Your task to perform on an android device: turn on improve location accuracy Image 0: 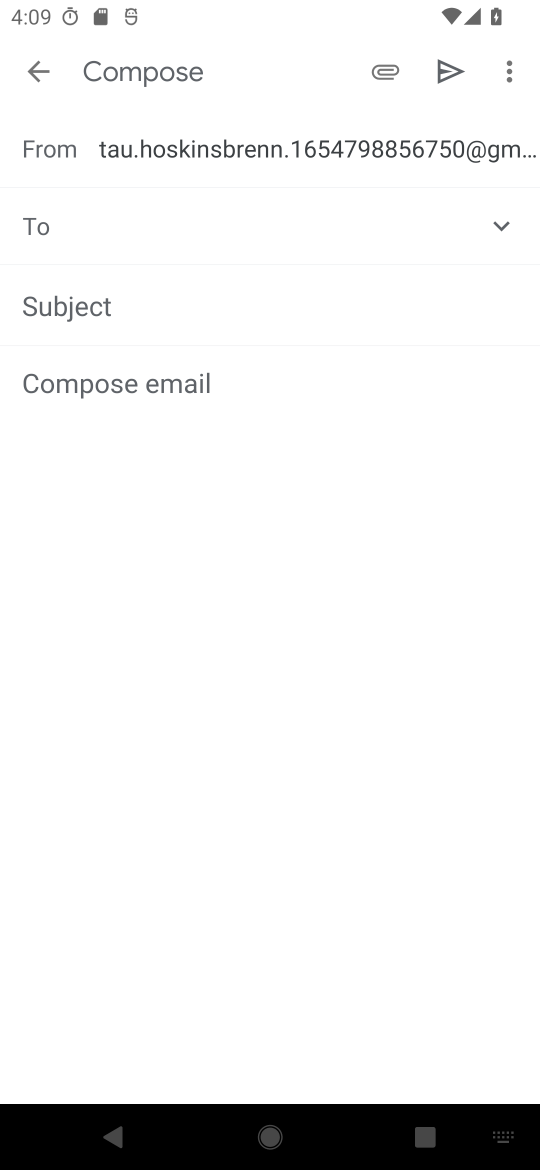
Step 0: press home button
Your task to perform on an android device: turn on improve location accuracy Image 1: 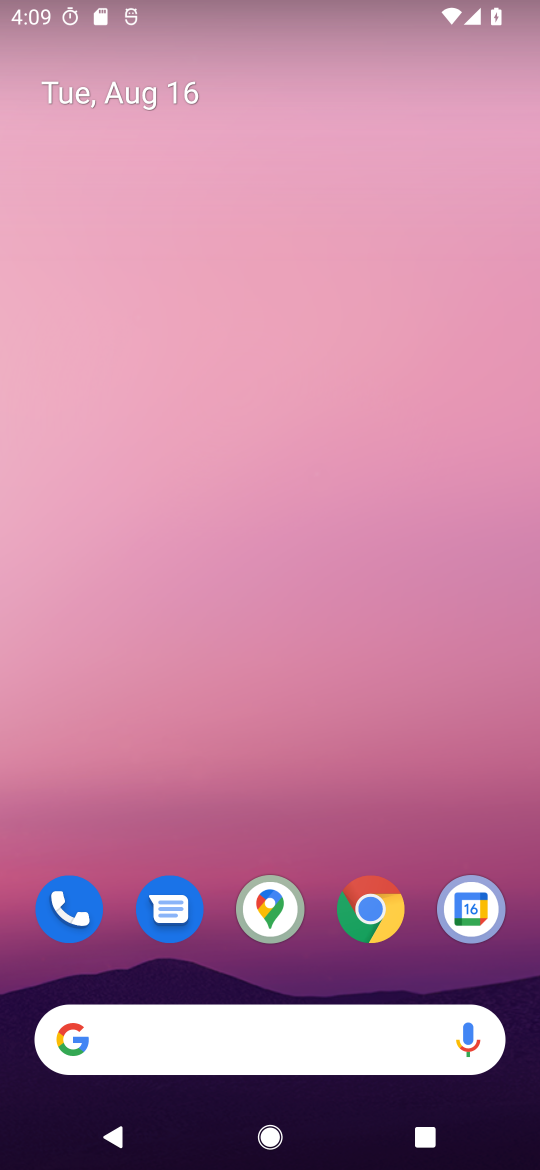
Step 1: drag from (266, 944) to (202, 88)
Your task to perform on an android device: turn on improve location accuracy Image 2: 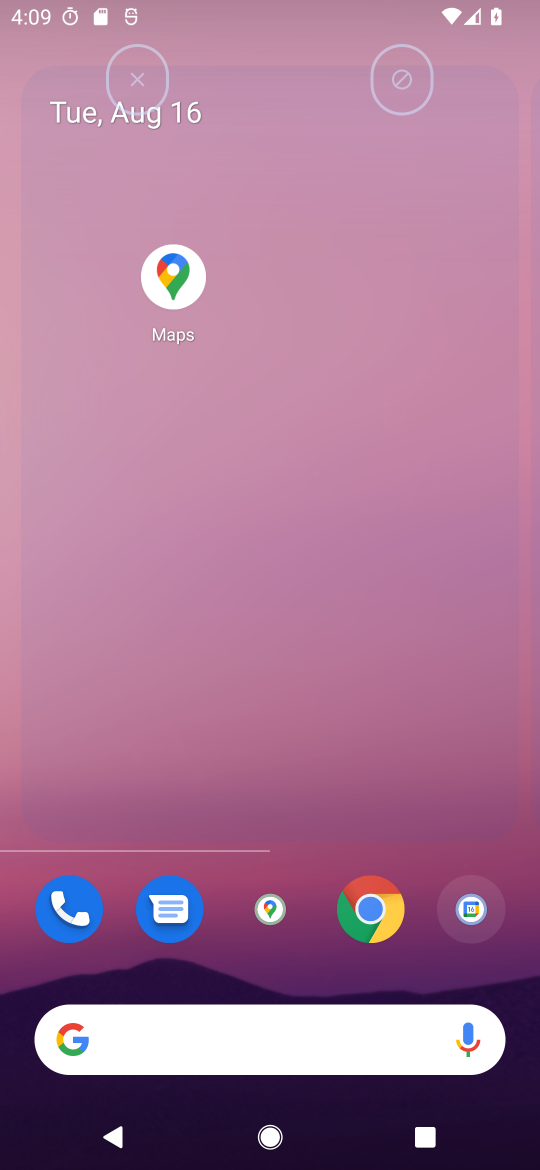
Step 2: click (321, 932)
Your task to perform on an android device: turn on improve location accuracy Image 3: 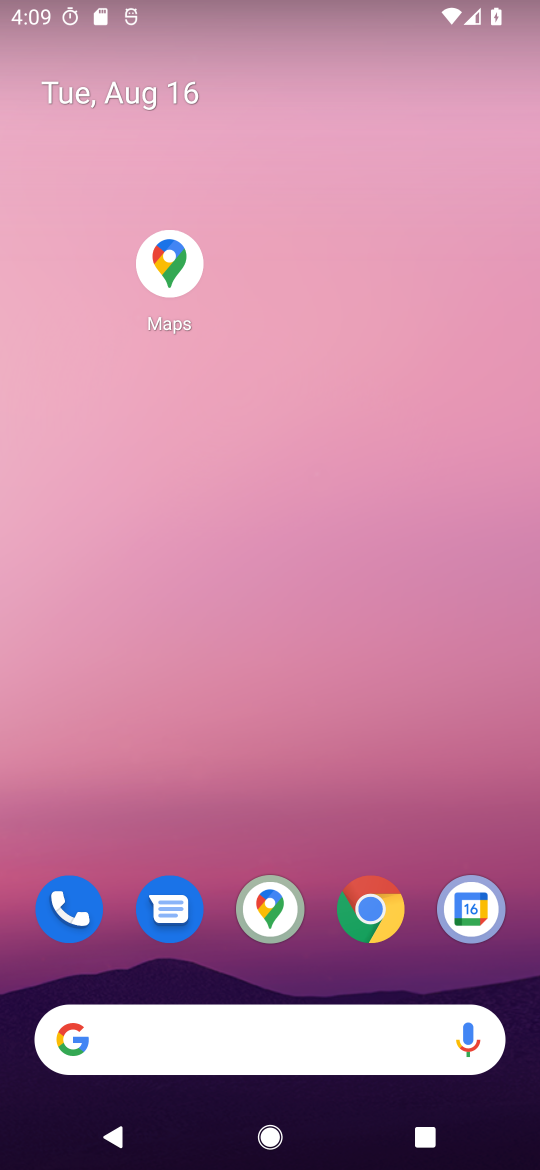
Step 3: drag from (253, 996) to (240, 187)
Your task to perform on an android device: turn on improve location accuracy Image 4: 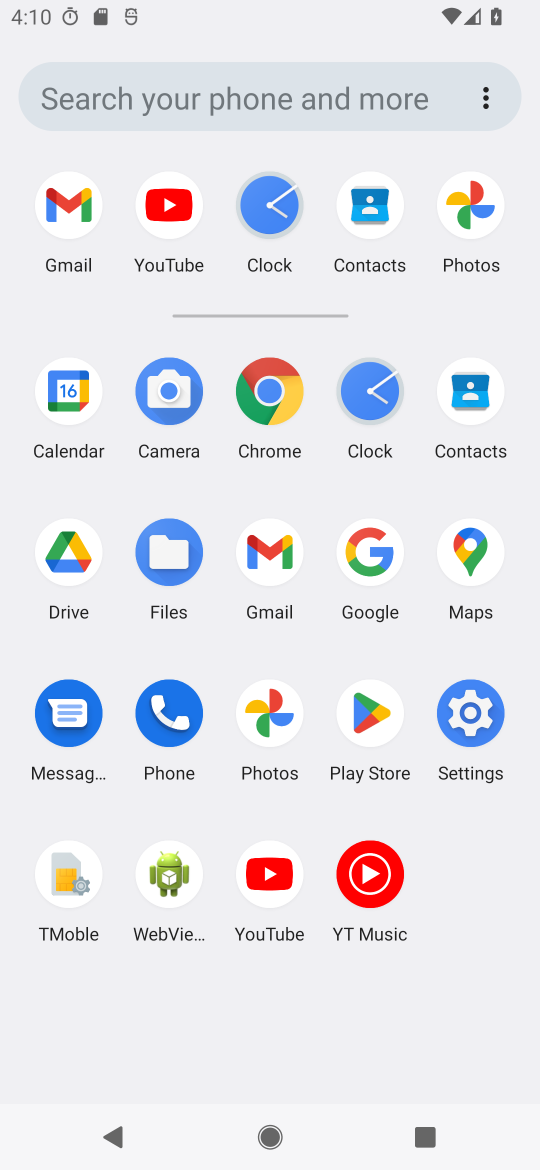
Step 4: click (460, 704)
Your task to perform on an android device: turn on improve location accuracy Image 5: 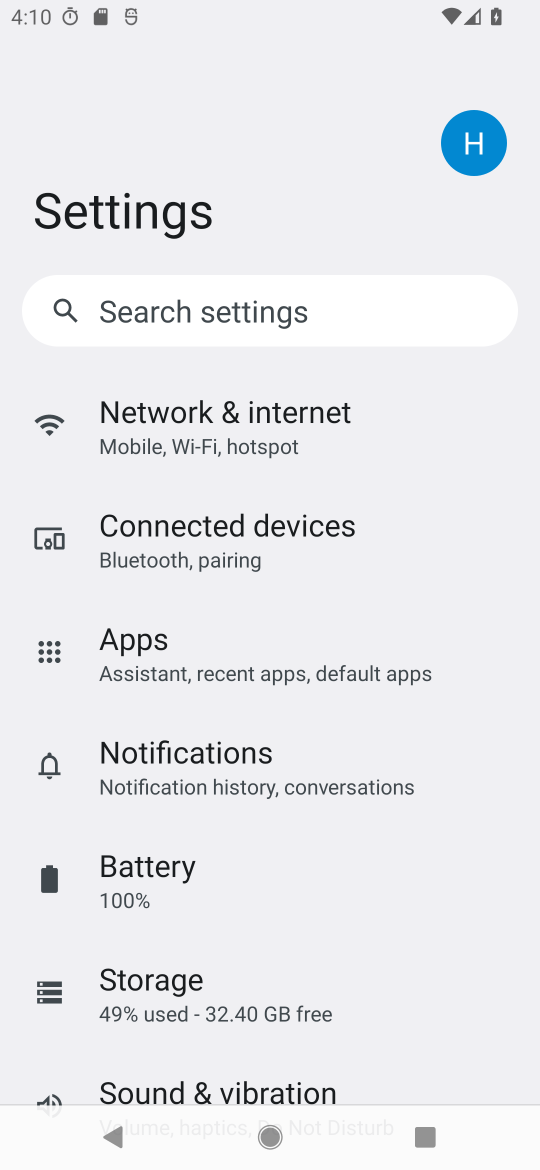
Step 5: drag from (275, 929) to (279, 447)
Your task to perform on an android device: turn on improve location accuracy Image 6: 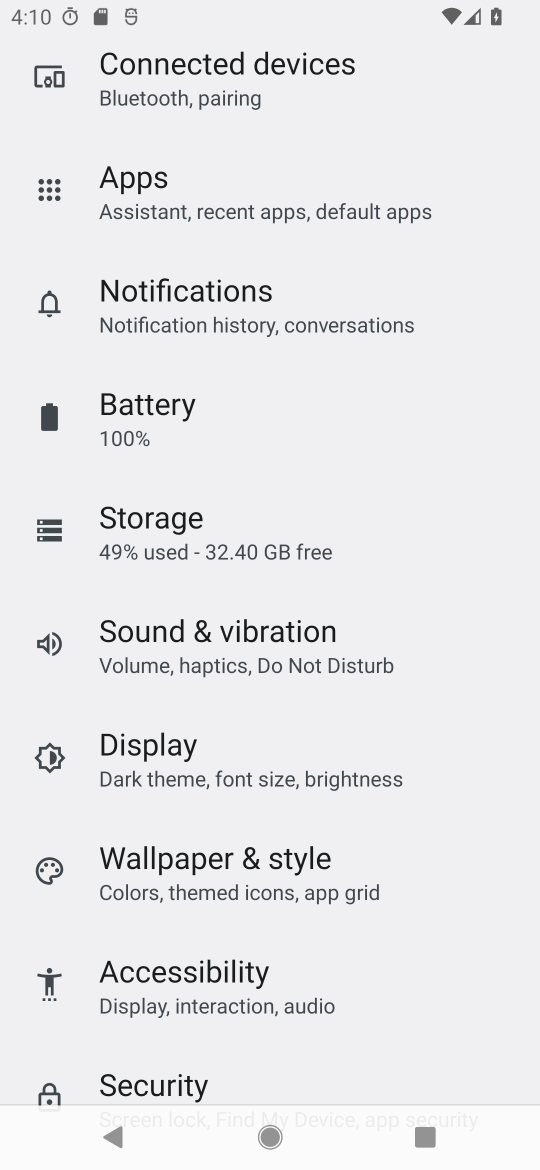
Step 6: drag from (244, 829) to (250, 610)
Your task to perform on an android device: turn on improve location accuracy Image 7: 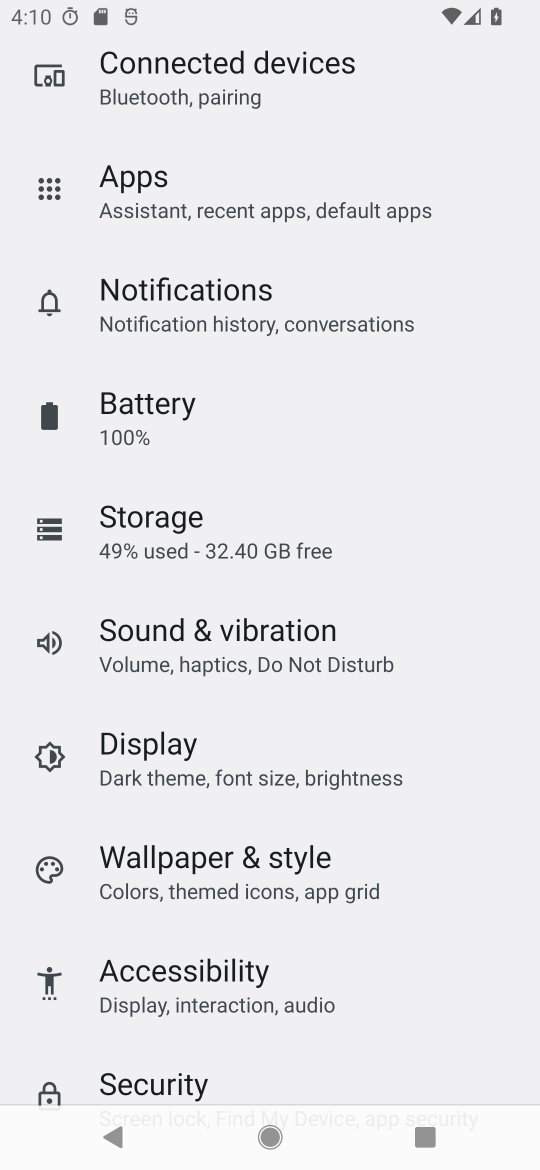
Step 7: drag from (250, 1030) to (393, 179)
Your task to perform on an android device: turn on improve location accuracy Image 8: 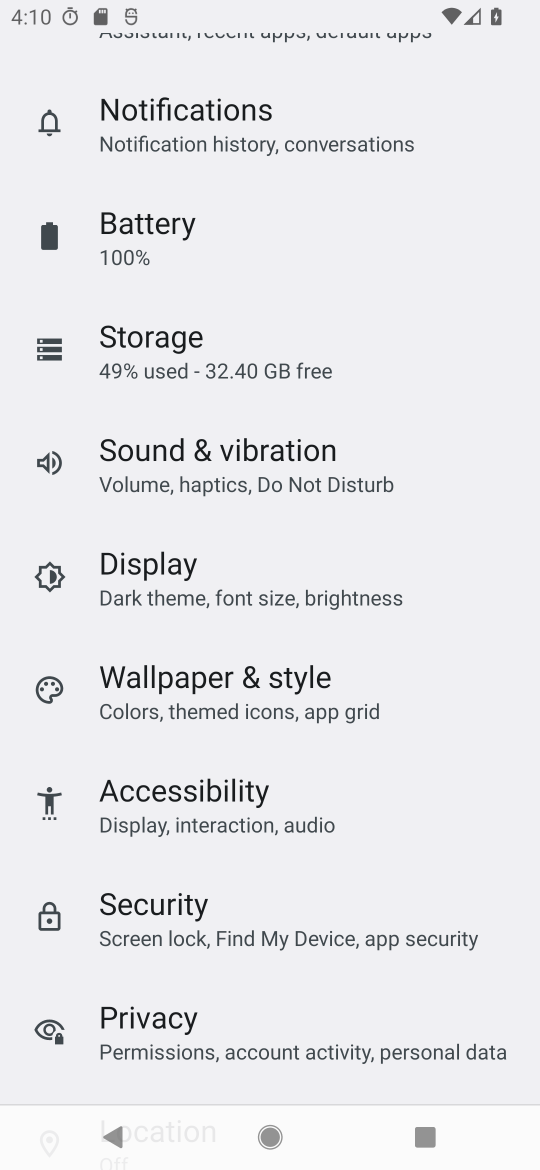
Step 8: drag from (248, 950) to (334, 134)
Your task to perform on an android device: turn on improve location accuracy Image 9: 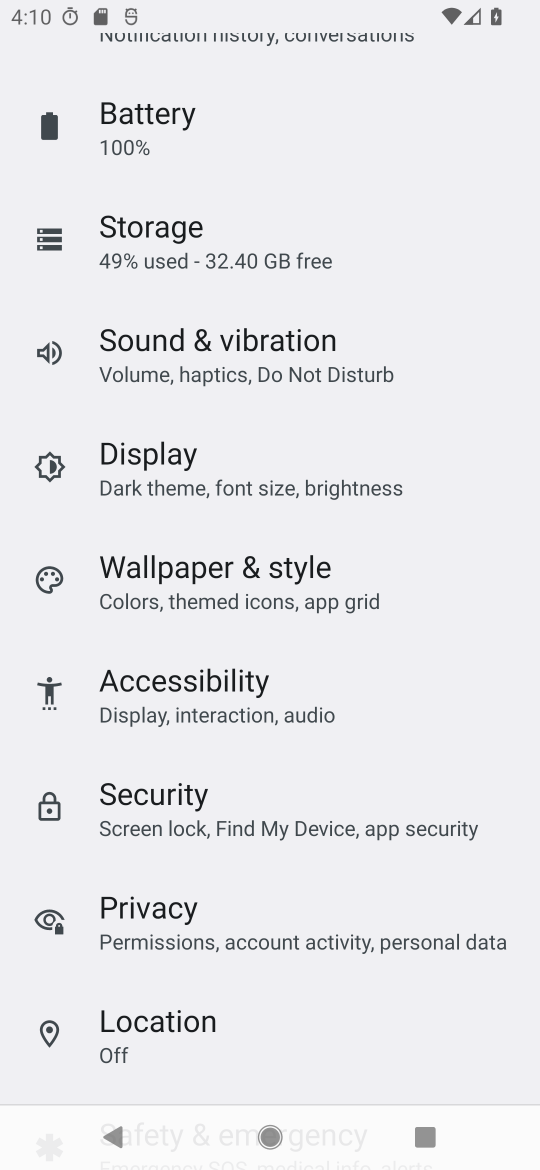
Step 9: click (174, 1043)
Your task to perform on an android device: turn on improve location accuracy Image 10: 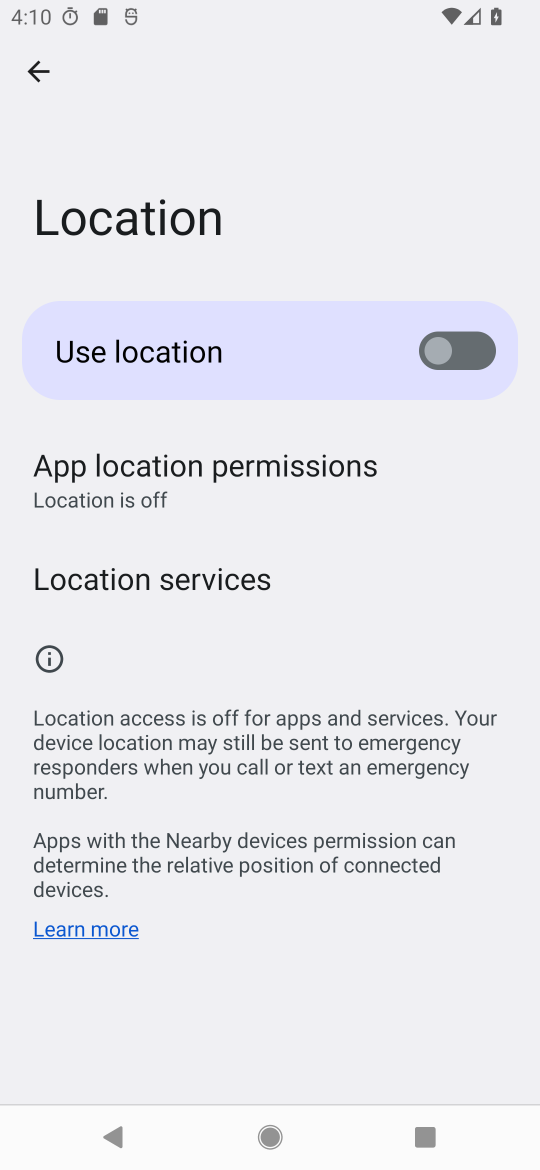
Step 10: click (475, 348)
Your task to perform on an android device: turn on improve location accuracy Image 11: 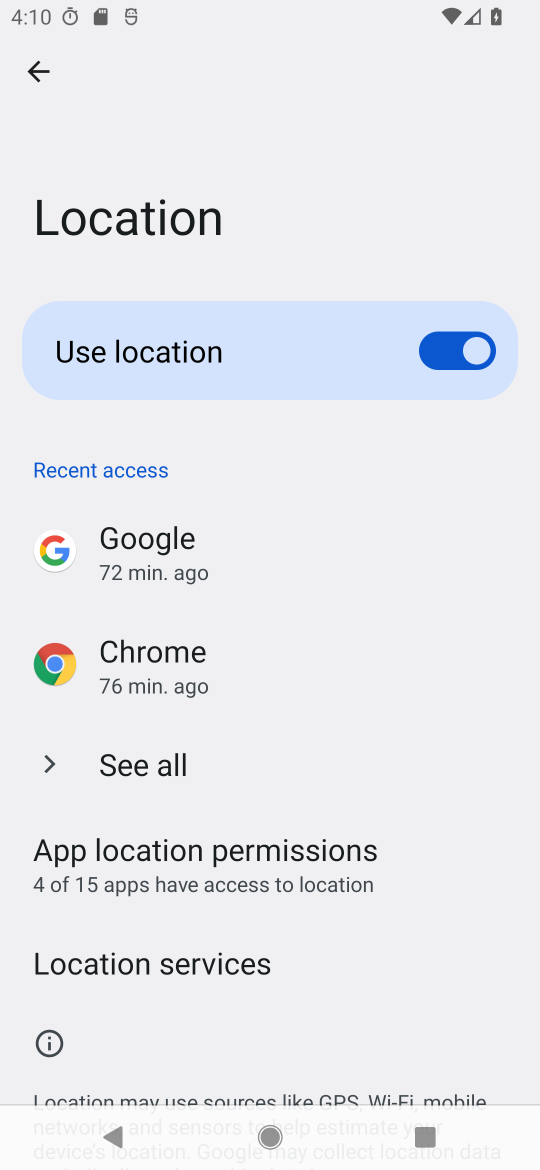
Step 11: task complete